Your task to perform on an android device: search for starred emails in the gmail app Image 0: 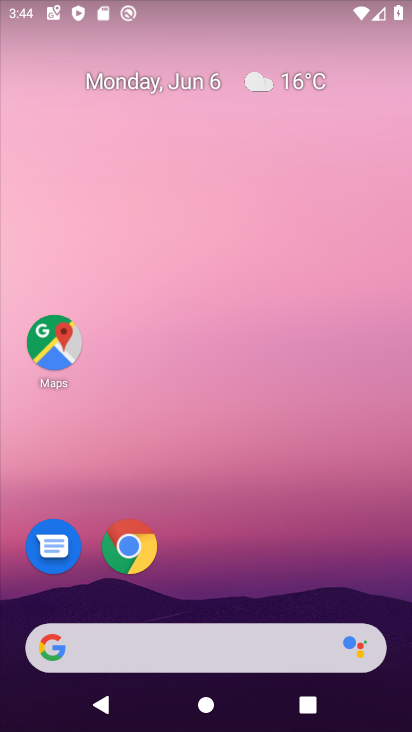
Step 0: drag from (334, 564) to (384, 25)
Your task to perform on an android device: search for starred emails in the gmail app Image 1: 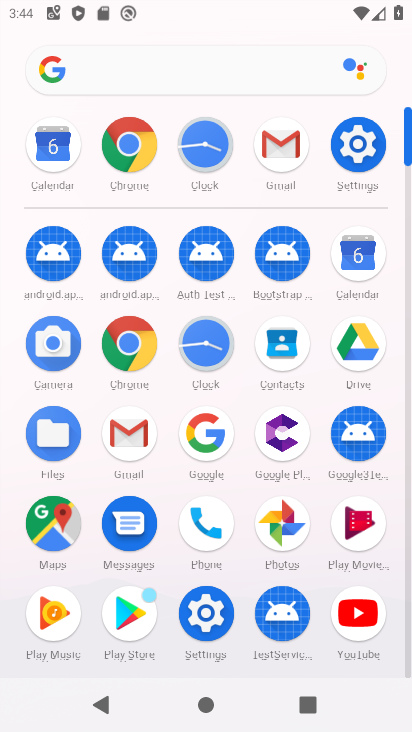
Step 1: click (293, 144)
Your task to perform on an android device: search for starred emails in the gmail app Image 2: 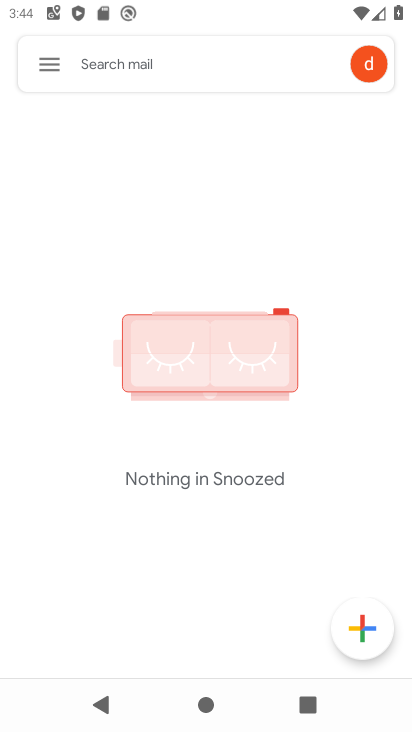
Step 2: click (37, 80)
Your task to perform on an android device: search for starred emails in the gmail app Image 3: 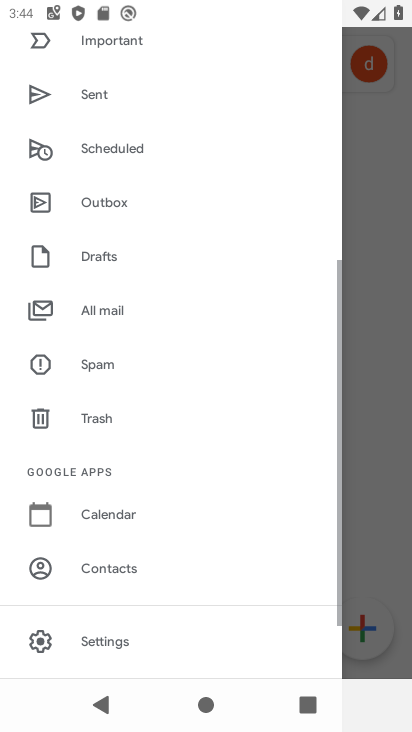
Step 3: drag from (129, 320) to (189, 658)
Your task to perform on an android device: search for starred emails in the gmail app Image 4: 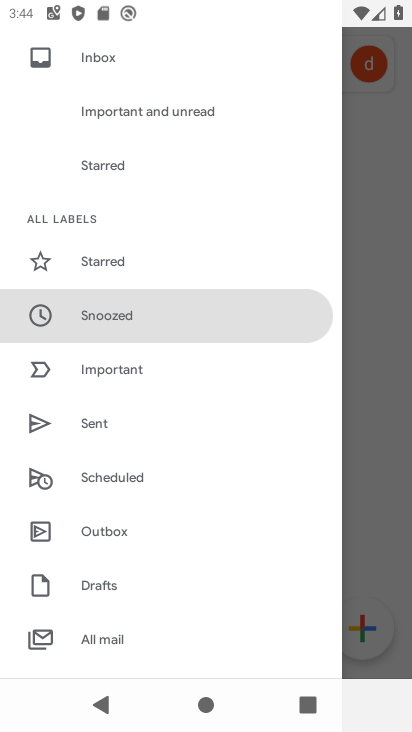
Step 4: click (108, 165)
Your task to perform on an android device: search for starred emails in the gmail app Image 5: 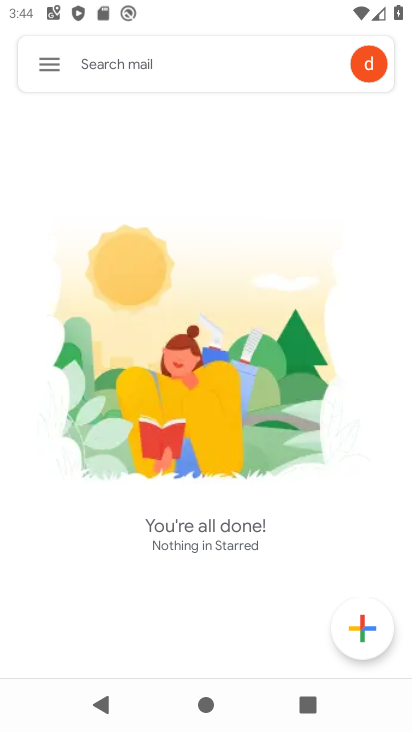
Step 5: task complete